Your task to perform on an android device: open a bookmark in the chrome app Image 0: 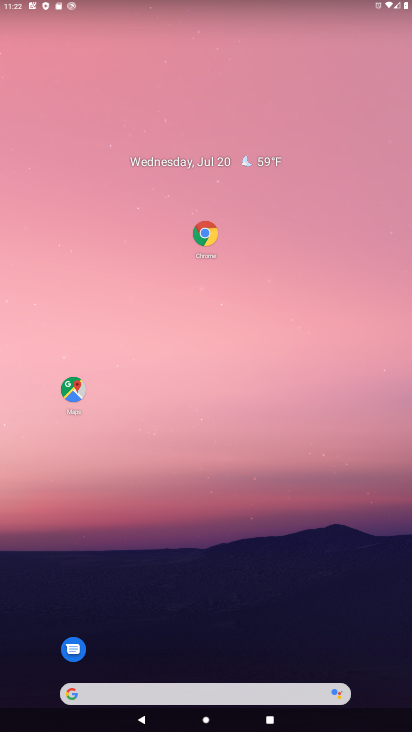
Step 0: click (205, 235)
Your task to perform on an android device: open a bookmark in the chrome app Image 1: 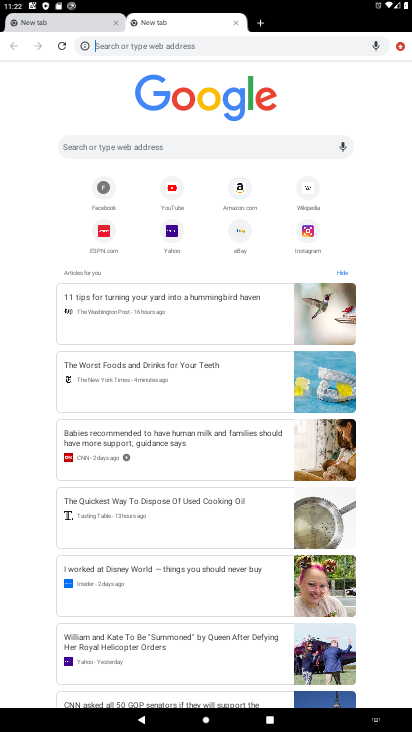
Step 1: click (399, 49)
Your task to perform on an android device: open a bookmark in the chrome app Image 2: 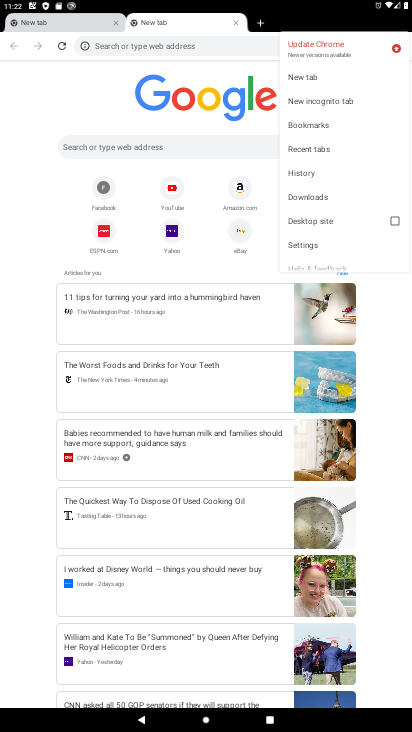
Step 2: click (312, 126)
Your task to perform on an android device: open a bookmark in the chrome app Image 3: 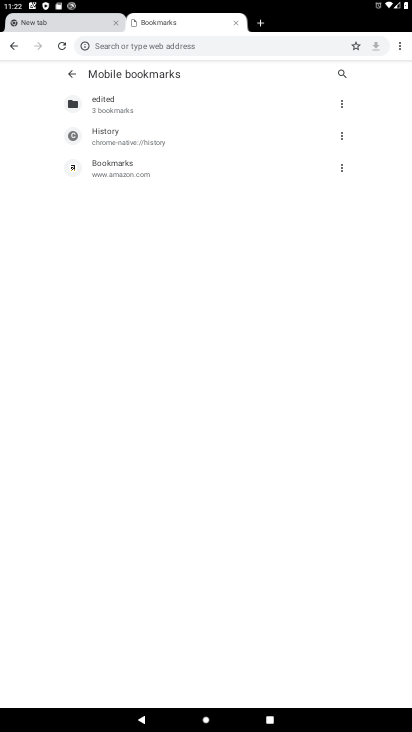
Step 3: click (123, 107)
Your task to perform on an android device: open a bookmark in the chrome app Image 4: 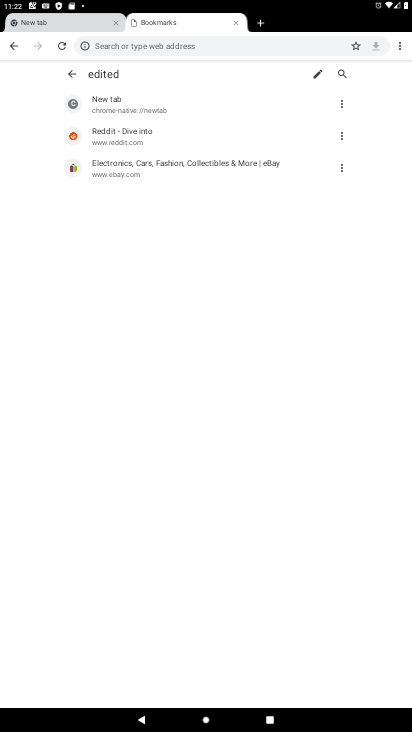
Step 4: click (112, 133)
Your task to perform on an android device: open a bookmark in the chrome app Image 5: 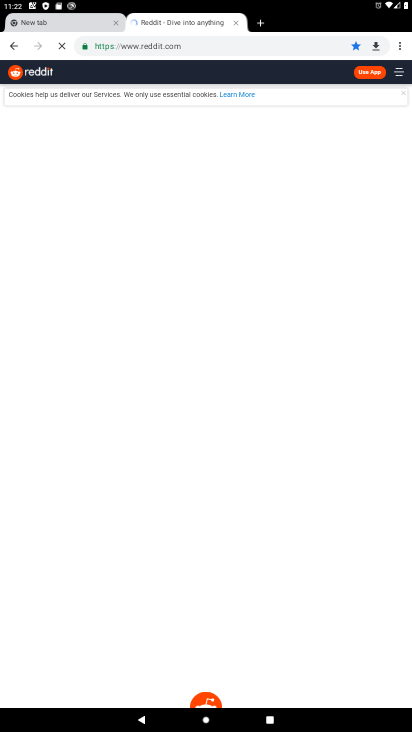
Step 5: task complete